Your task to perform on an android device: Turn off the flashlight Image 0: 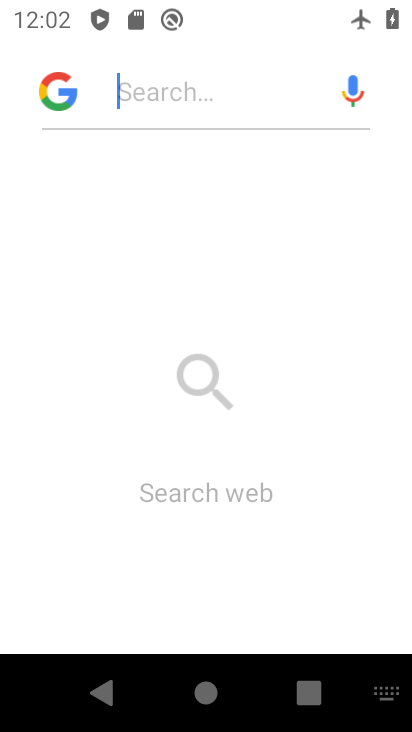
Step 0: press home button
Your task to perform on an android device: Turn off the flashlight Image 1: 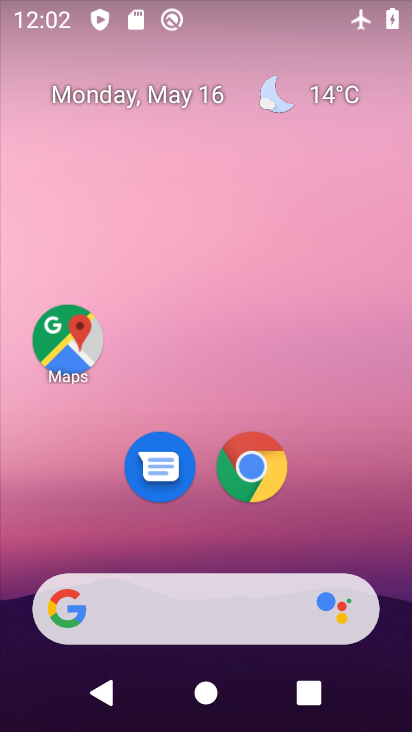
Step 1: drag from (301, 529) to (350, 265)
Your task to perform on an android device: Turn off the flashlight Image 2: 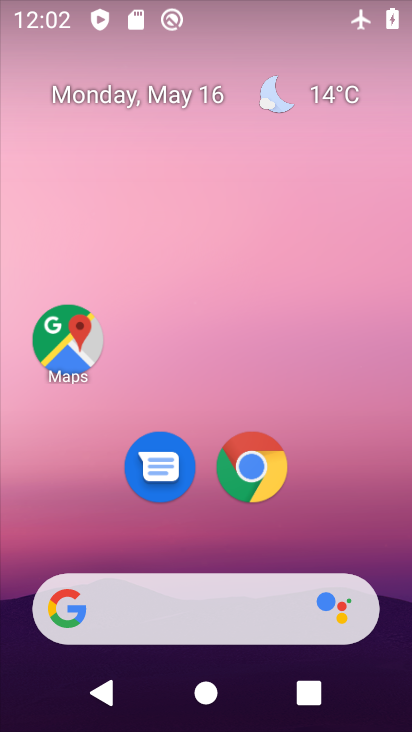
Step 2: drag from (234, 562) to (289, 324)
Your task to perform on an android device: Turn off the flashlight Image 3: 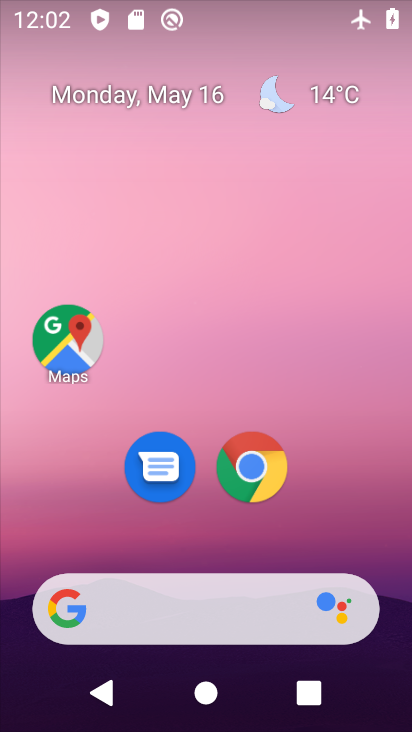
Step 3: drag from (242, 526) to (293, 195)
Your task to perform on an android device: Turn off the flashlight Image 4: 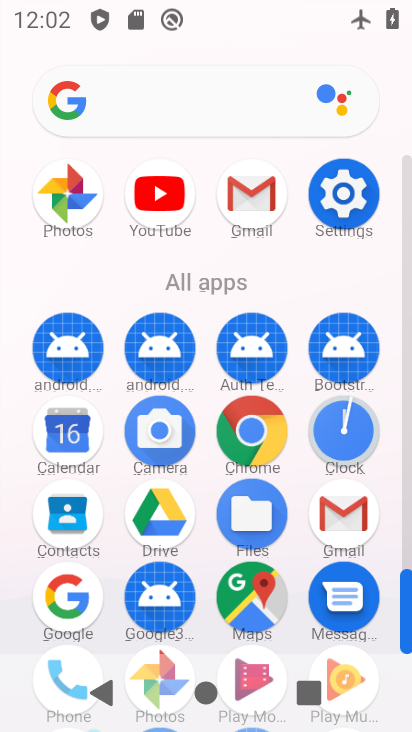
Step 4: click (359, 174)
Your task to perform on an android device: Turn off the flashlight Image 5: 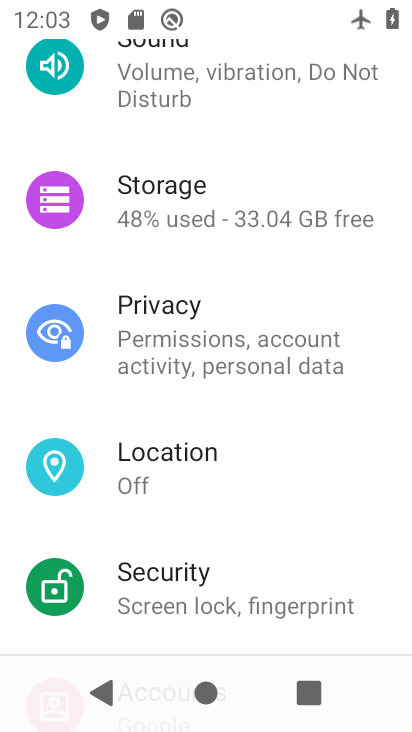
Step 5: task complete